Your task to perform on an android device: open chrome privacy settings Image 0: 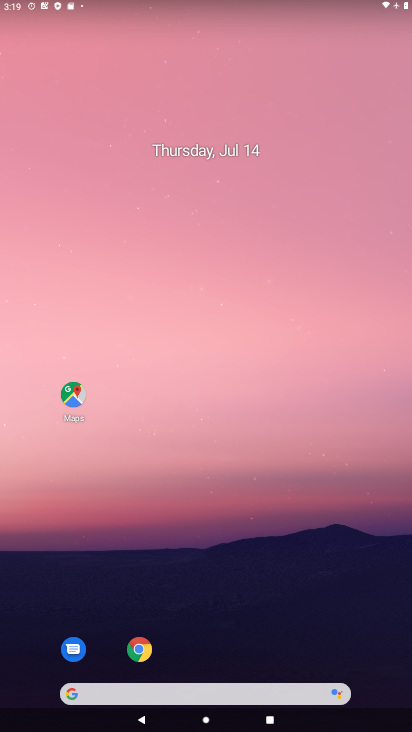
Step 0: click (135, 645)
Your task to perform on an android device: open chrome privacy settings Image 1: 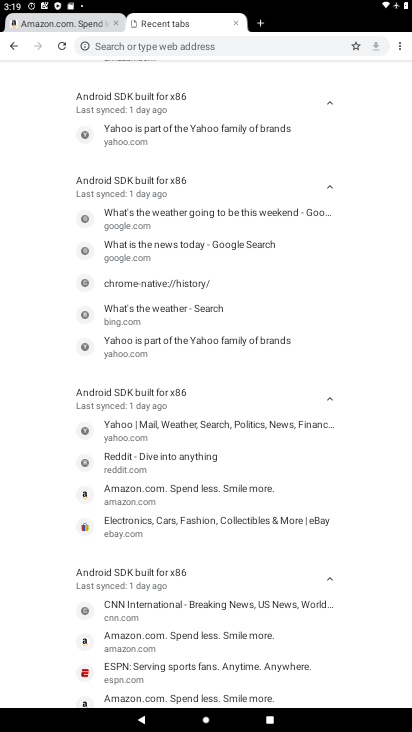
Step 1: click (399, 43)
Your task to perform on an android device: open chrome privacy settings Image 2: 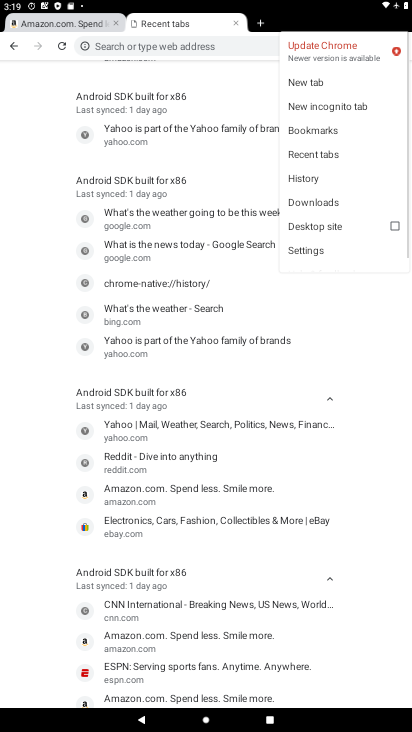
Step 2: click (304, 247)
Your task to perform on an android device: open chrome privacy settings Image 3: 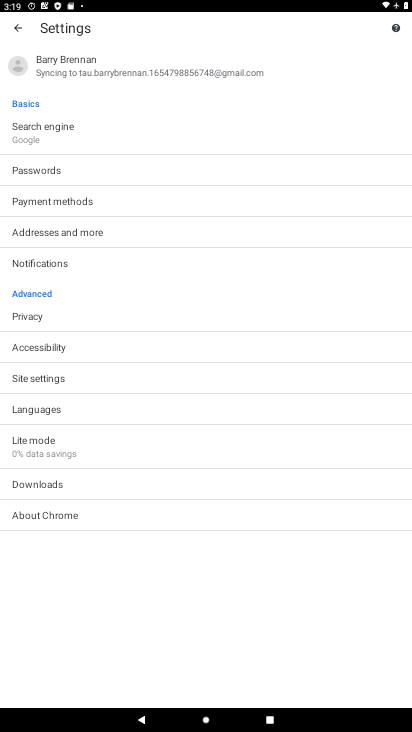
Step 3: click (39, 318)
Your task to perform on an android device: open chrome privacy settings Image 4: 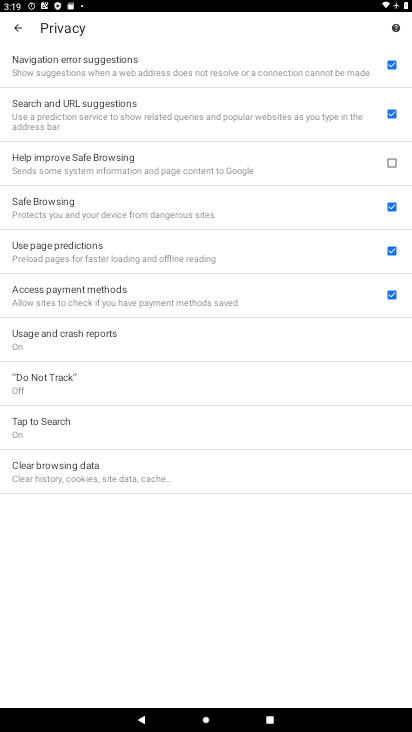
Step 4: task complete